Your task to perform on an android device: turn on javascript in the chrome app Image 0: 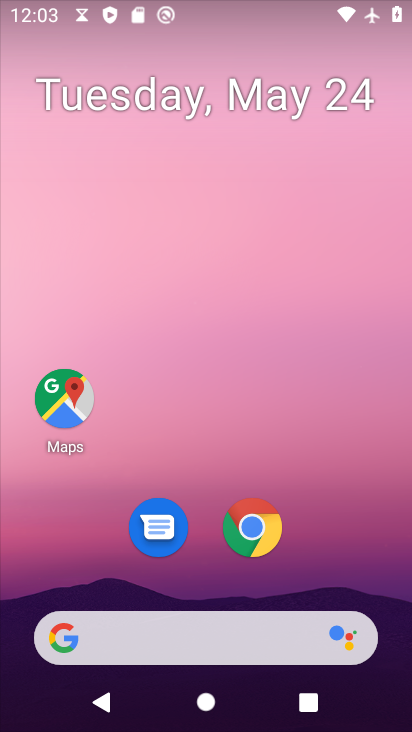
Step 0: press home button
Your task to perform on an android device: turn on javascript in the chrome app Image 1: 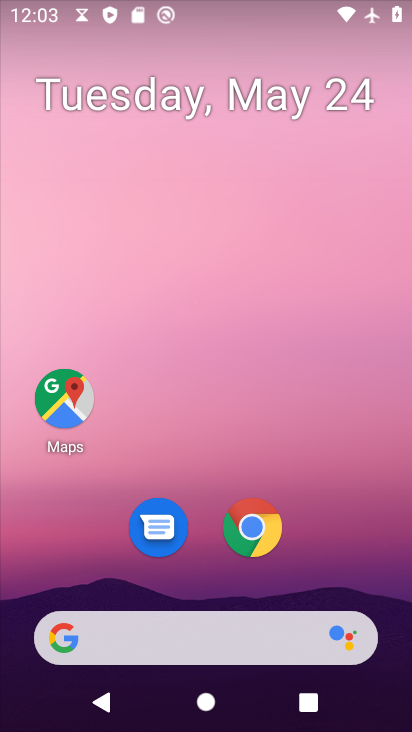
Step 1: click (256, 530)
Your task to perform on an android device: turn on javascript in the chrome app Image 2: 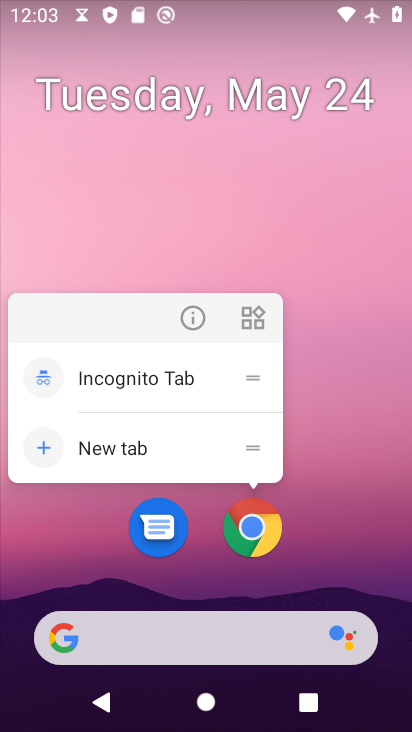
Step 2: click (263, 540)
Your task to perform on an android device: turn on javascript in the chrome app Image 3: 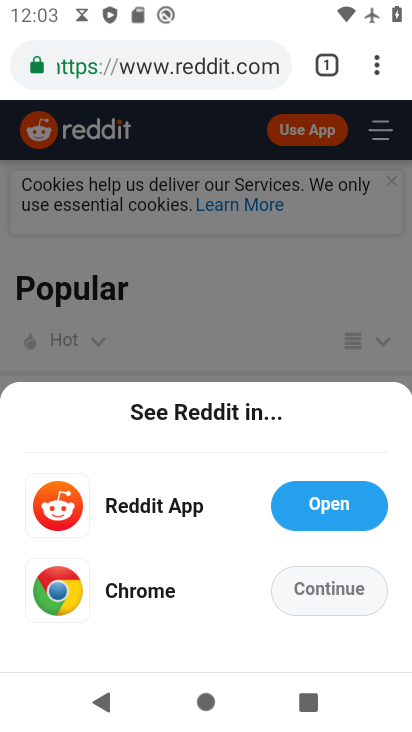
Step 3: drag from (381, 72) to (240, 574)
Your task to perform on an android device: turn on javascript in the chrome app Image 4: 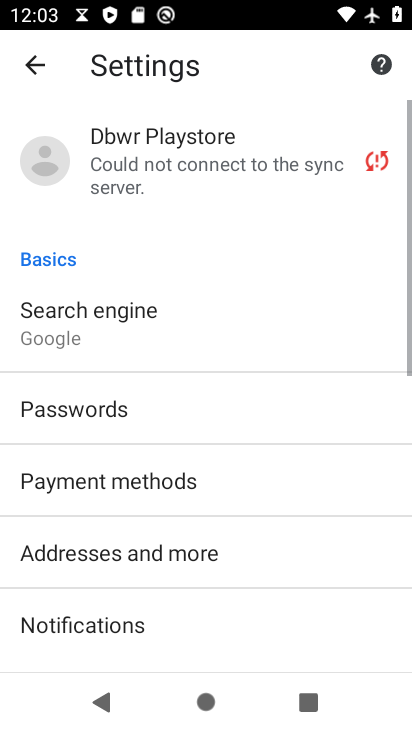
Step 4: drag from (200, 628) to (316, 107)
Your task to perform on an android device: turn on javascript in the chrome app Image 5: 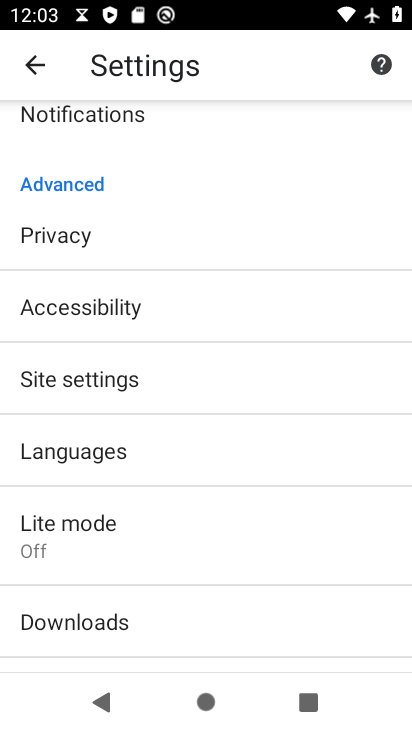
Step 5: click (103, 383)
Your task to perform on an android device: turn on javascript in the chrome app Image 6: 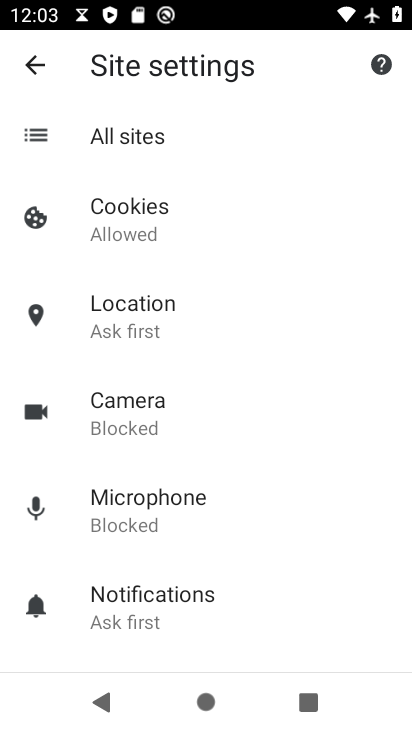
Step 6: drag from (228, 559) to (291, 203)
Your task to perform on an android device: turn on javascript in the chrome app Image 7: 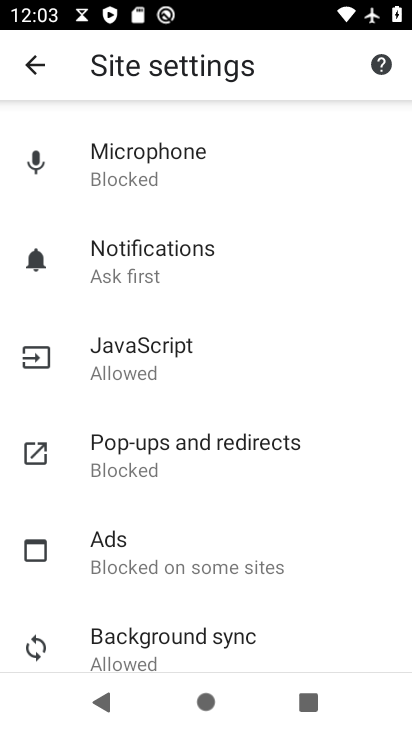
Step 7: click (148, 367)
Your task to perform on an android device: turn on javascript in the chrome app Image 8: 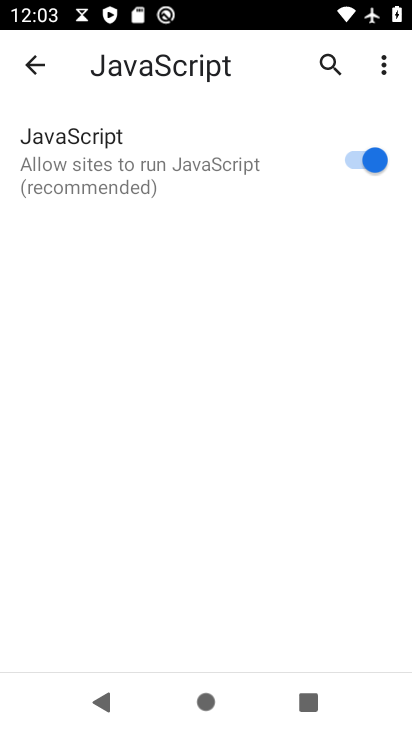
Step 8: task complete